Your task to perform on an android device: Open the calendar and show me this week's events? Image 0: 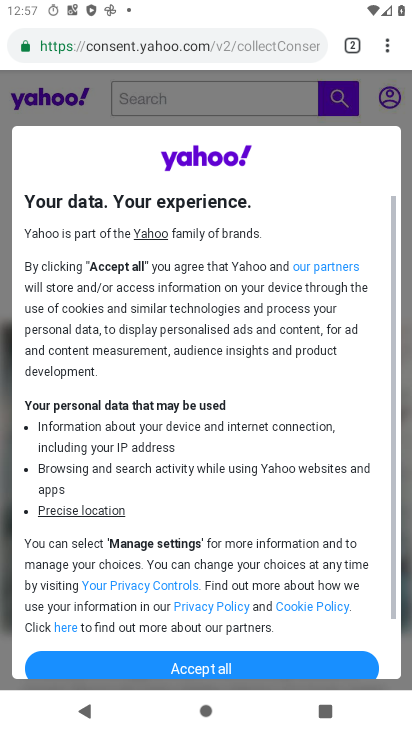
Step 0: press home button
Your task to perform on an android device: Open the calendar and show me this week's events? Image 1: 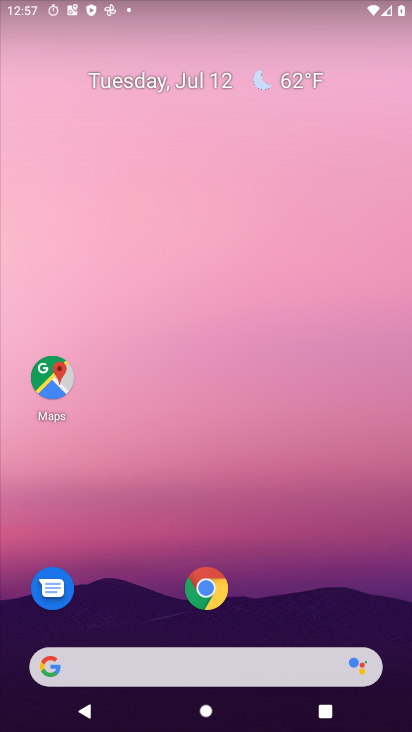
Step 1: click (213, 351)
Your task to perform on an android device: Open the calendar and show me this week's events? Image 2: 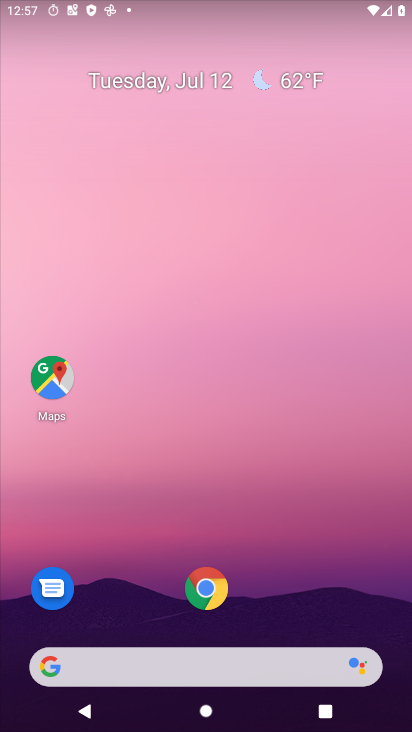
Step 2: drag from (224, 627) to (264, 182)
Your task to perform on an android device: Open the calendar and show me this week's events? Image 3: 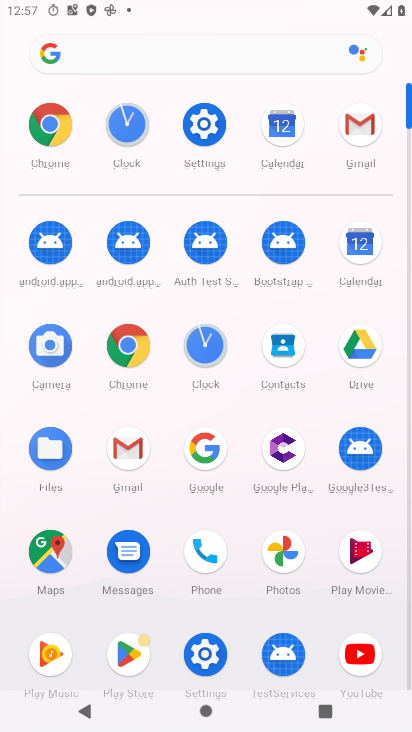
Step 3: click (264, 182)
Your task to perform on an android device: Open the calendar and show me this week's events? Image 4: 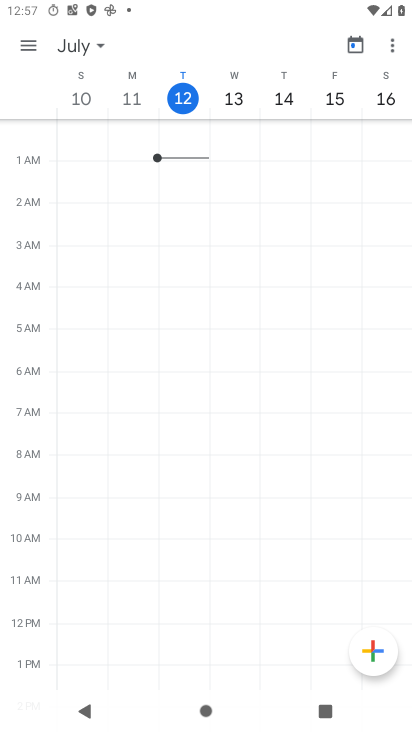
Step 4: task complete